Your task to perform on an android device: Go to network settings Image 0: 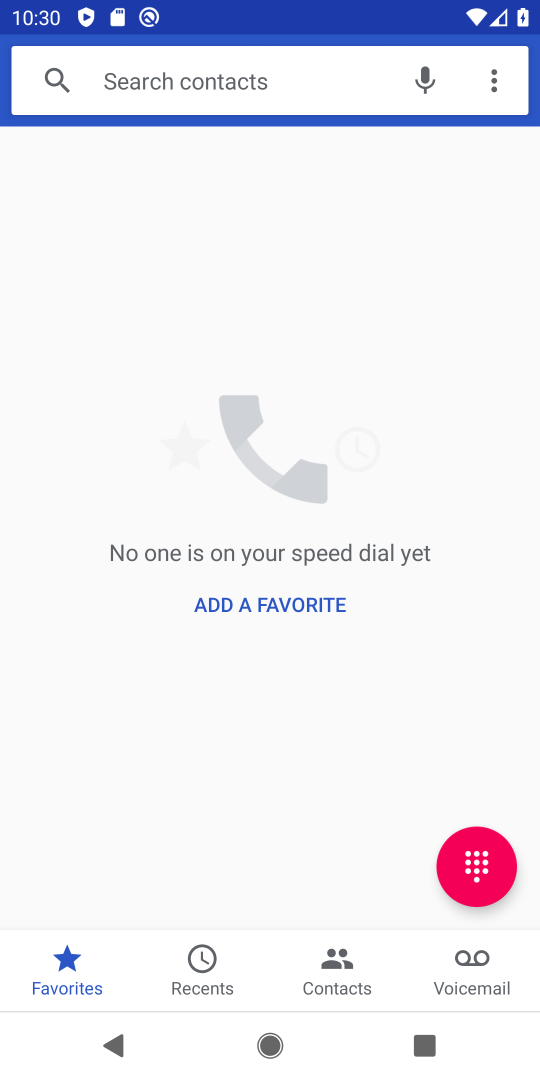
Step 0: press home button
Your task to perform on an android device: Go to network settings Image 1: 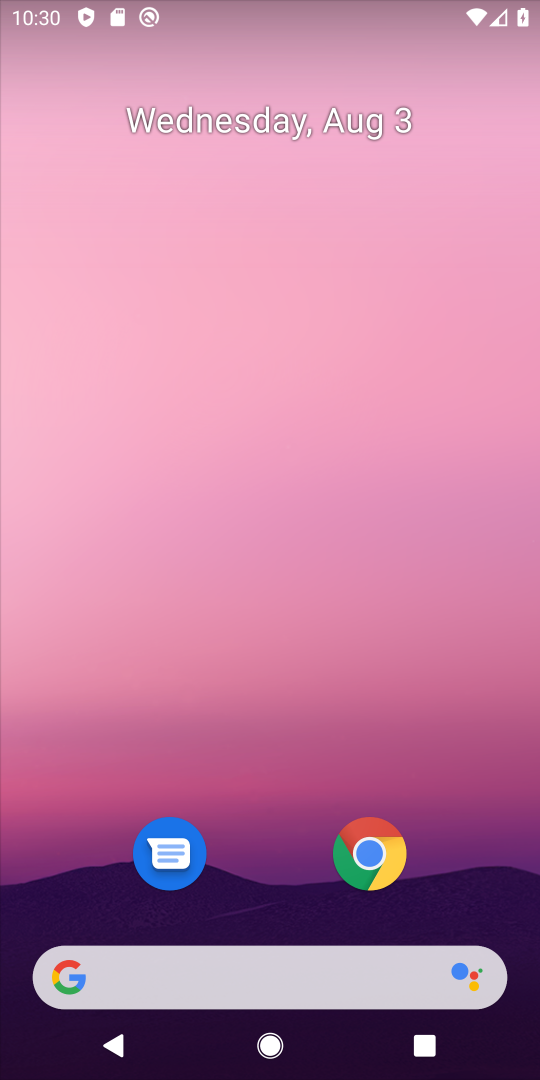
Step 1: drag from (287, 950) to (231, 2)
Your task to perform on an android device: Go to network settings Image 2: 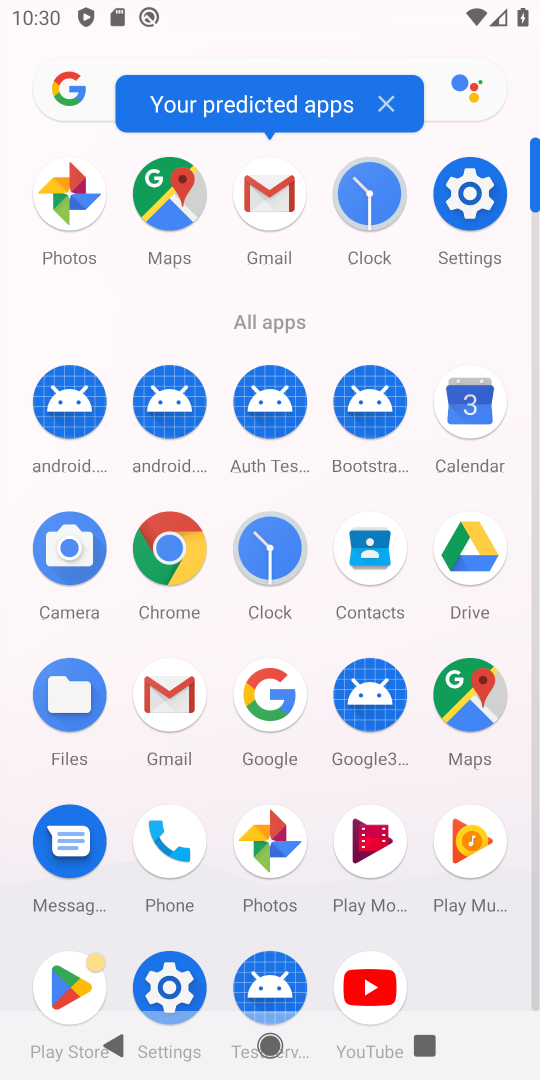
Step 2: click (428, 167)
Your task to perform on an android device: Go to network settings Image 3: 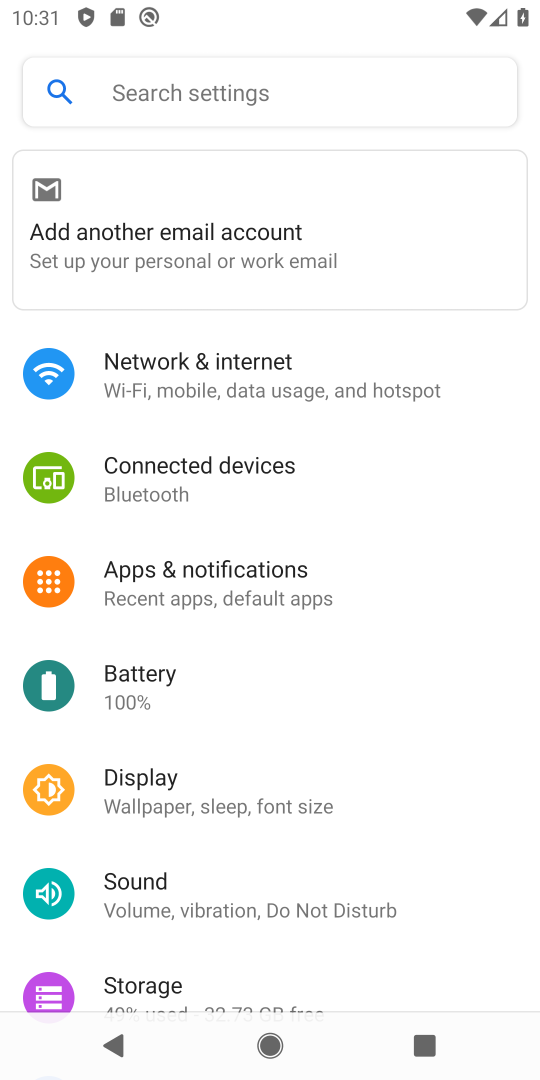
Step 3: click (226, 425)
Your task to perform on an android device: Go to network settings Image 4: 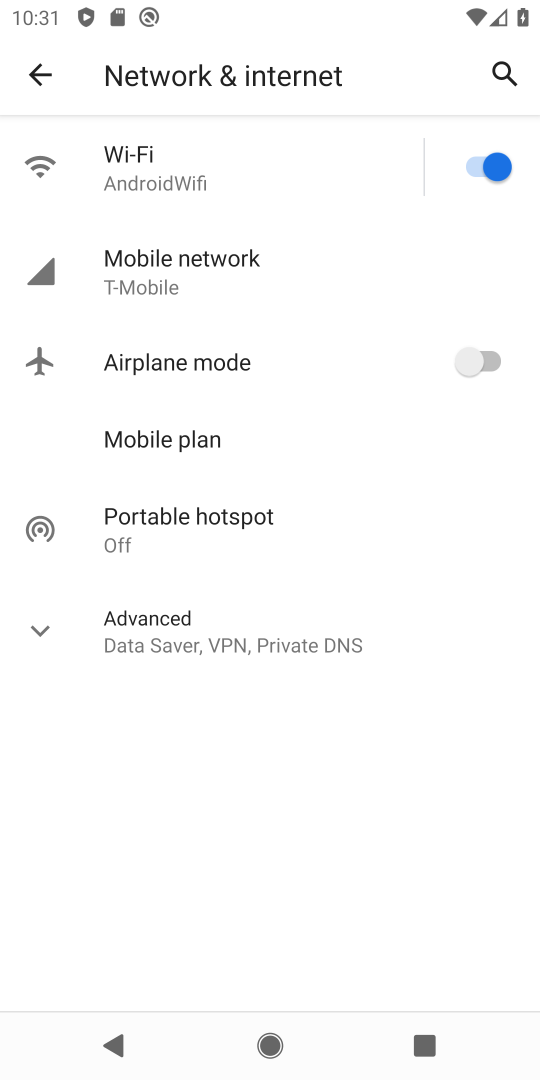
Step 4: task complete